Your task to perform on an android device: toggle location history Image 0: 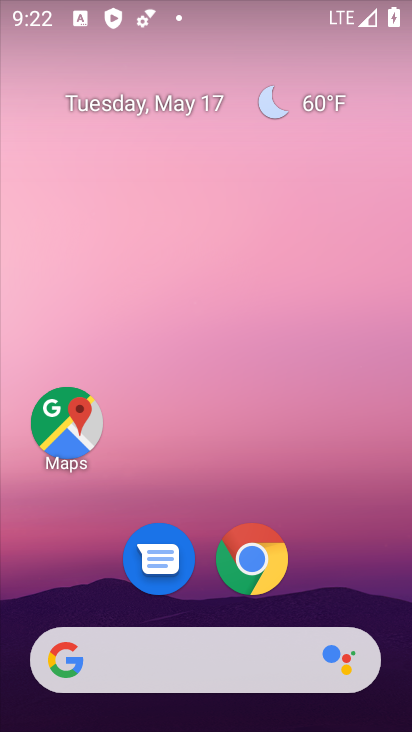
Step 0: drag from (235, 598) to (235, 162)
Your task to perform on an android device: toggle location history Image 1: 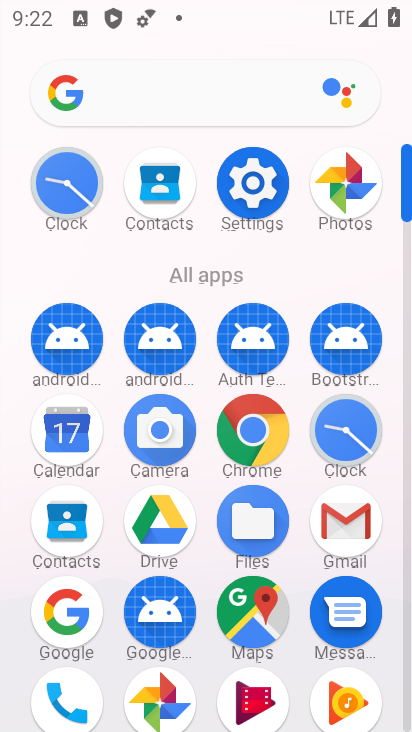
Step 1: click (239, 169)
Your task to perform on an android device: toggle location history Image 2: 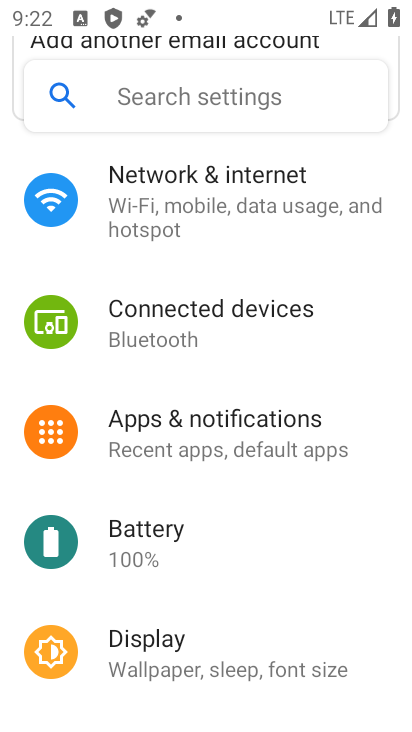
Step 2: drag from (198, 649) to (186, 247)
Your task to perform on an android device: toggle location history Image 3: 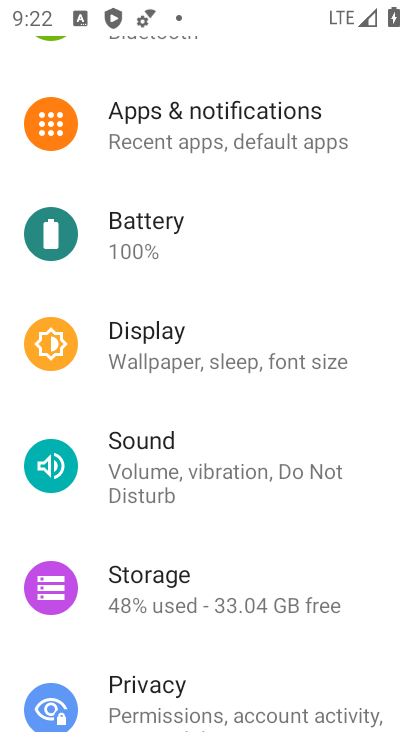
Step 3: drag from (187, 685) to (174, 273)
Your task to perform on an android device: toggle location history Image 4: 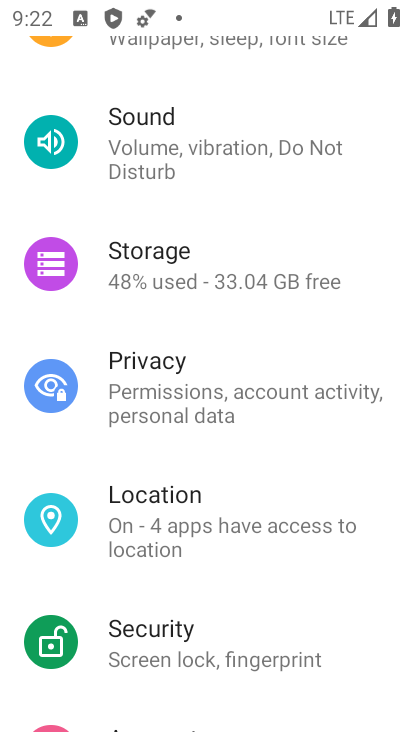
Step 4: click (168, 534)
Your task to perform on an android device: toggle location history Image 5: 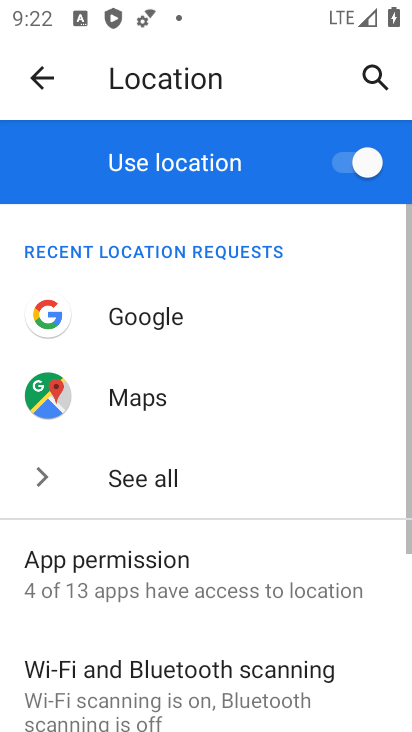
Step 5: drag from (168, 534) to (172, 179)
Your task to perform on an android device: toggle location history Image 6: 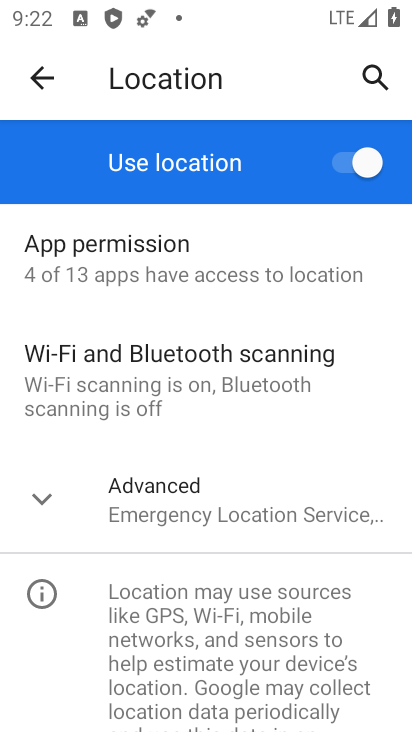
Step 6: click (178, 471)
Your task to perform on an android device: toggle location history Image 7: 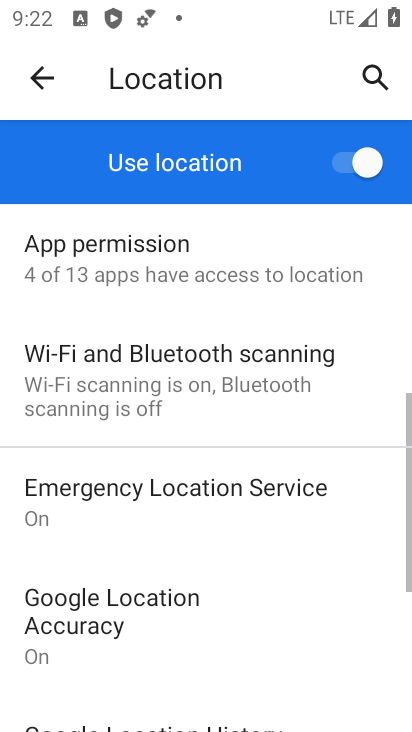
Step 7: drag from (214, 613) to (263, 282)
Your task to perform on an android device: toggle location history Image 8: 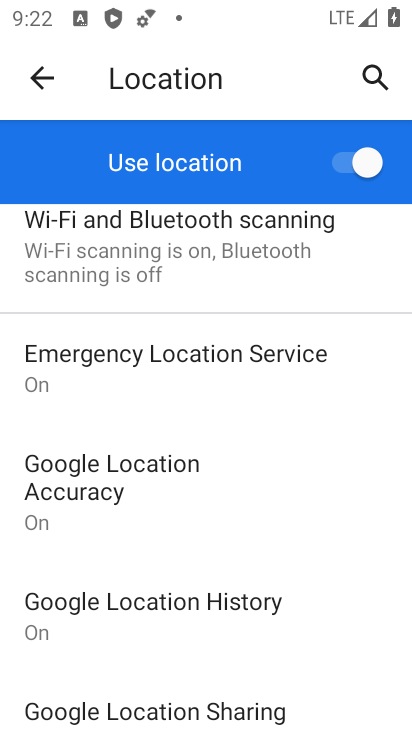
Step 8: click (199, 583)
Your task to perform on an android device: toggle location history Image 9: 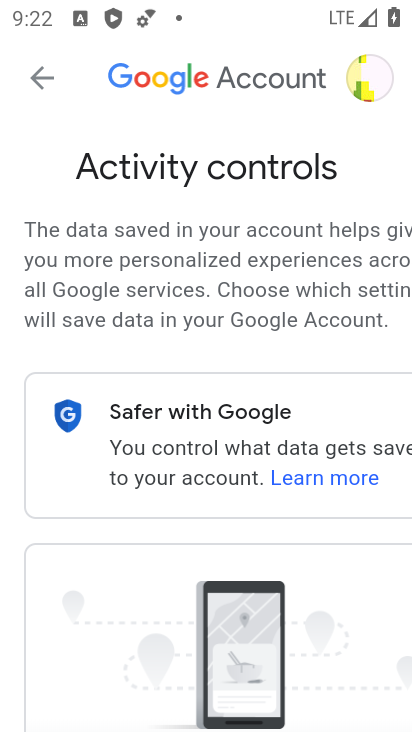
Step 9: drag from (307, 590) to (315, 230)
Your task to perform on an android device: toggle location history Image 10: 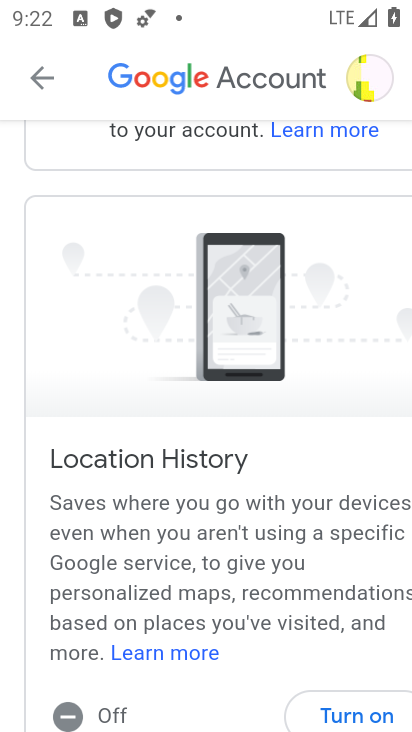
Step 10: drag from (240, 641) to (280, 419)
Your task to perform on an android device: toggle location history Image 11: 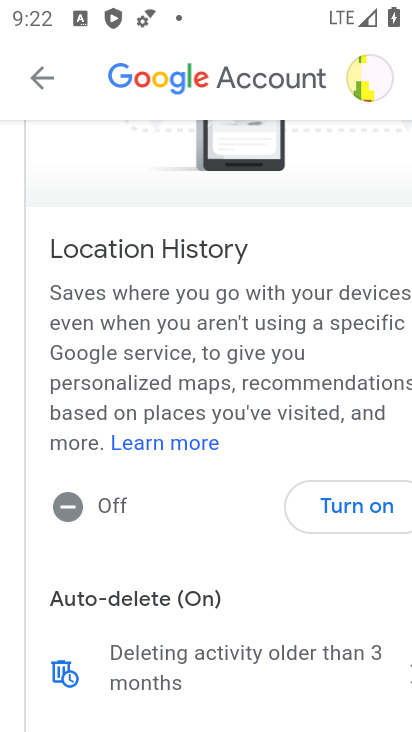
Step 11: click (355, 513)
Your task to perform on an android device: toggle location history Image 12: 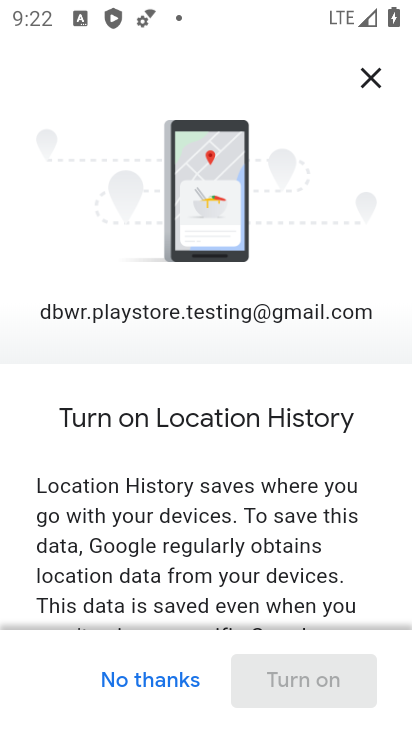
Step 12: drag from (224, 551) to (247, 168)
Your task to perform on an android device: toggle location history Image 13: 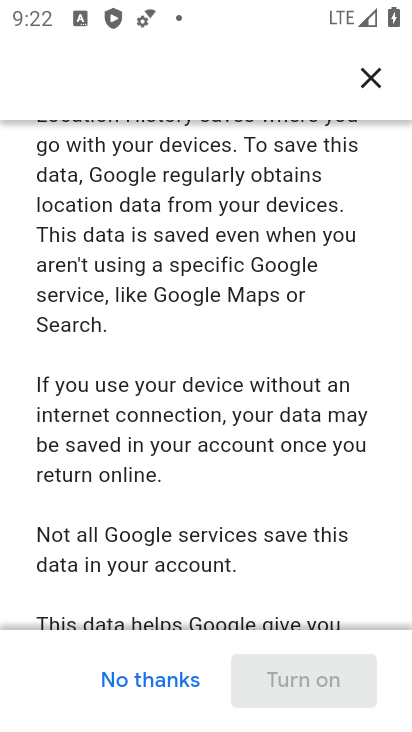
Step 13: drag from (305, 550) to (289, 148)
Your task to perform on an android device: toggle location history Image 14: 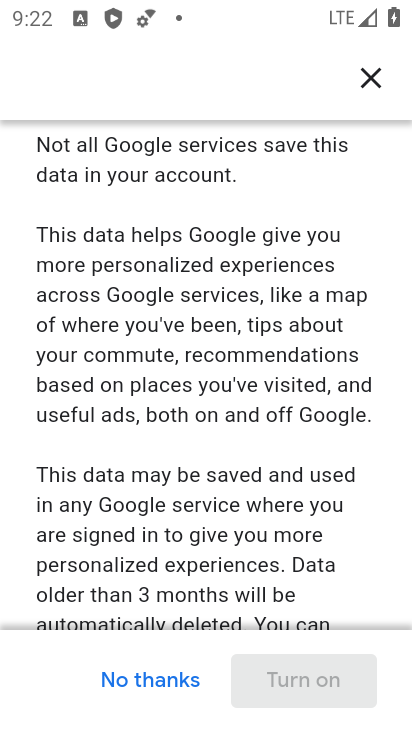
Step 14: drag from (289, 529) to (289, 188)
Your task to perform on an android device: toggle location history Image 15: 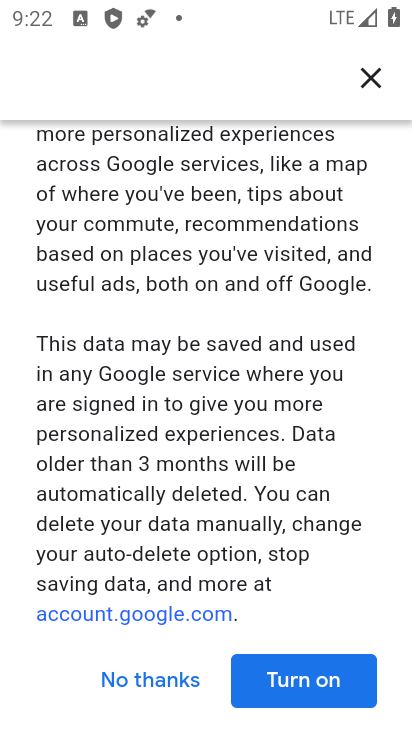
Step 15: click (289, 665)
Your task to perform on an android device: toggle location history Image 16: 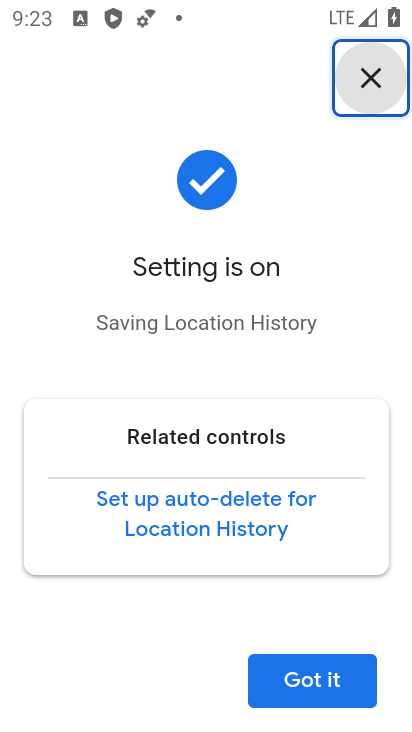
Step 16: task complete